Your task to perform on an android device: Open internet settings Image 0: 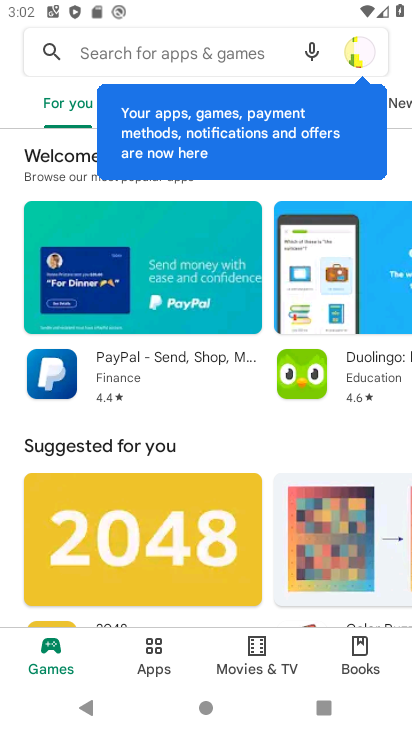
Step 0: press home button
Your task to perform on an android device: Open internet settings Image 1: 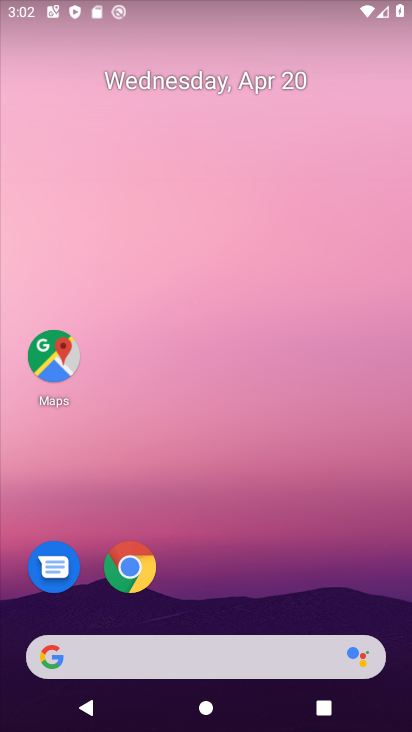
Step 1: drag from (266, 616) to (324, 78)
Your task to perform on an android device: Open internet settings Image 2: 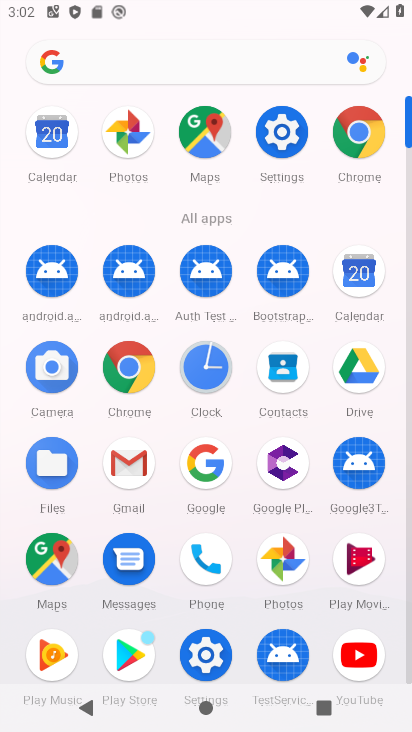
Step 2: click (295, 136)
Your task to perform on an android device: Open internet settings Image 3: 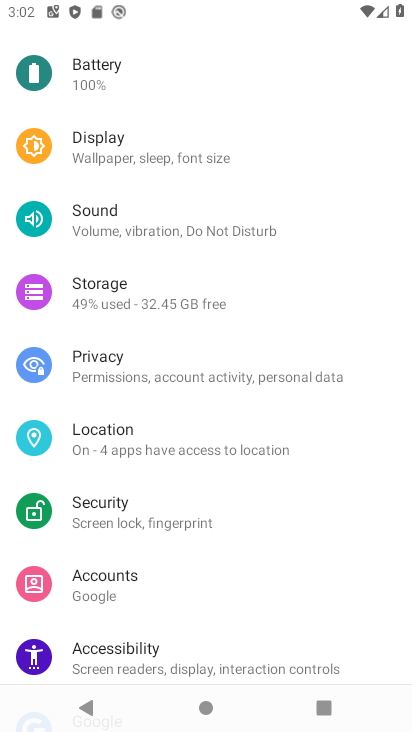
Step 3: drag from (264, 74) to (404, 550)
Your task to perform on an android device: Open internet settings Image 4: 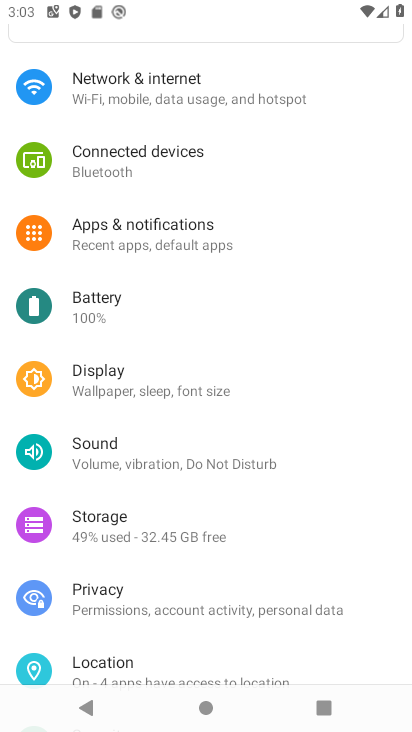
Step 4: click (266, 94)
Your task to perform on an android device: Open internet settings Image 5: 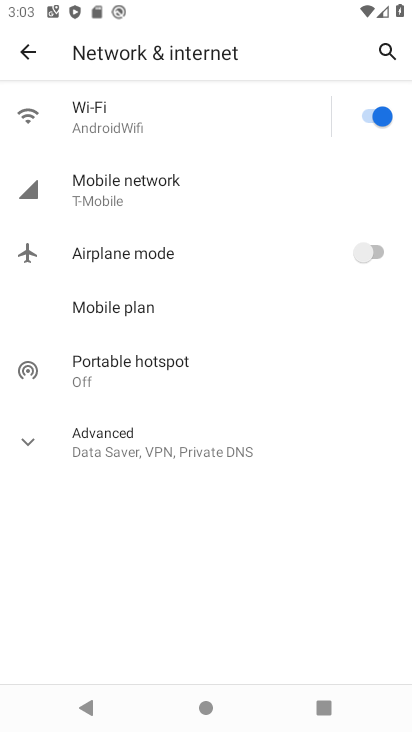
Step 5: task complete